Your task to perform on an android device: set the stopwatch Image 0: 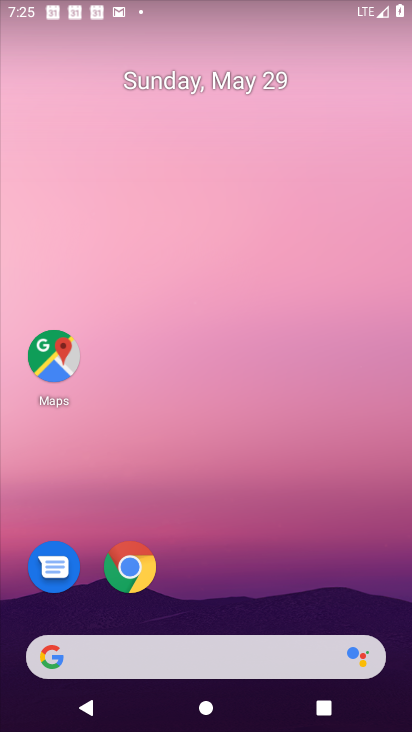
Step 0: drag from (286, 618) to (286, 261)
Your task to perform on an android device: set the stopwatch Image 1: 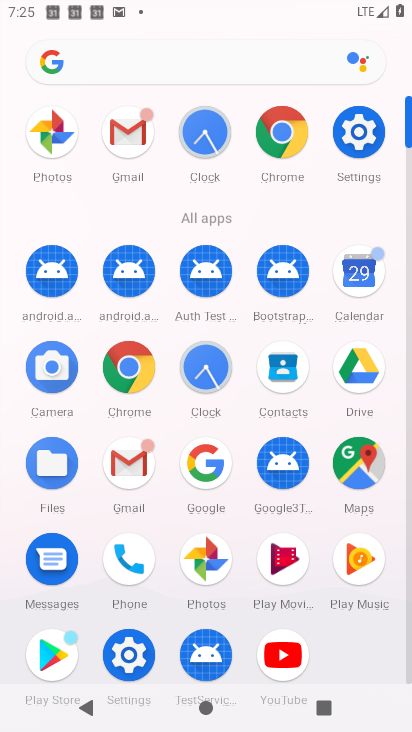
Step 1: click (204, 129)
Your task to perform on an android device: set the stopwatch Image 2: 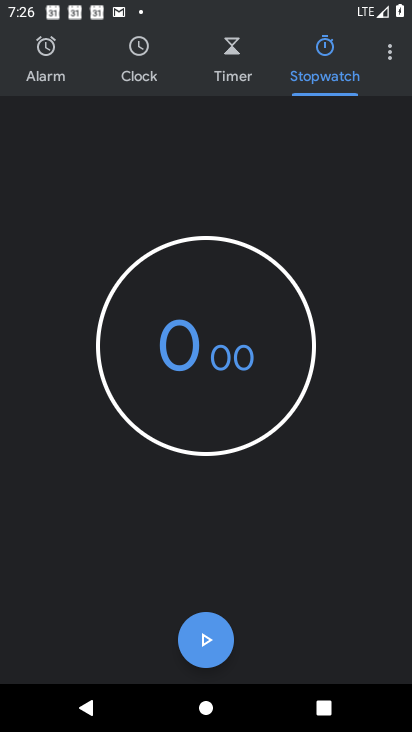
Step 2: task complete